Your task to perform on an android device: snooze an email in the gmail app Image 0: 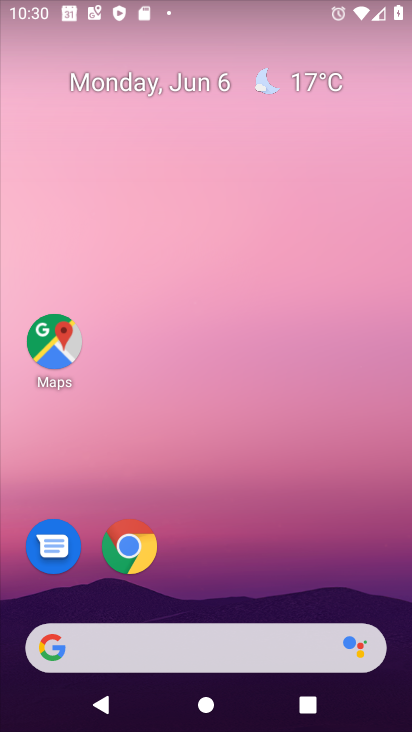
Step 0: drag from (212, 583) to (207, 75)
Your task to perform on an android device: snooze an email in the gmail app Image 1: 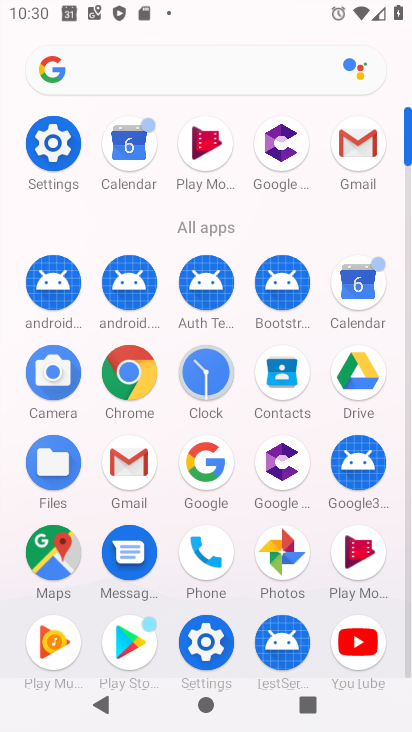
Step 1: click (143, 472)
Your task to perform on an android device: snooze an email in the gmail app Image 2: 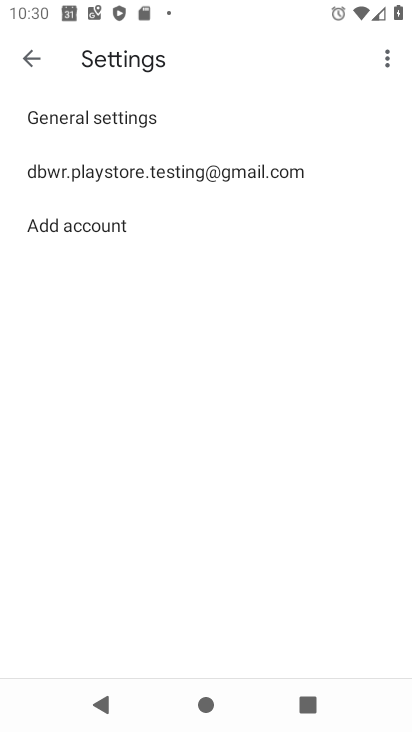
Step 2: click (28, 51)
Your task to perform on an android device: snooze an email in the gmail app Image 3: 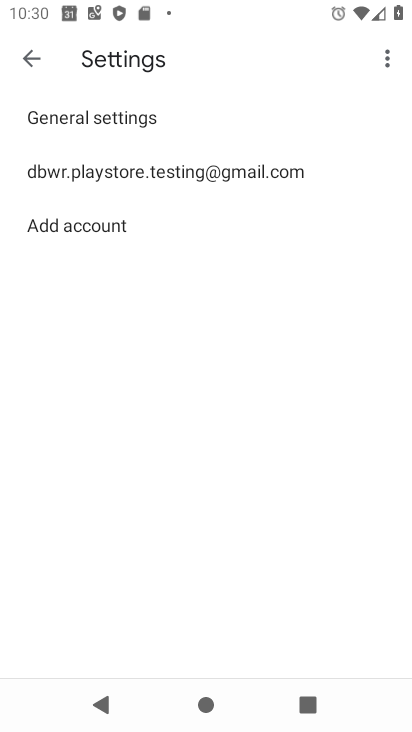
Step 3: click (28, 53)
Your task to perform on an android device: snooze an email in the gmail app Image 4: 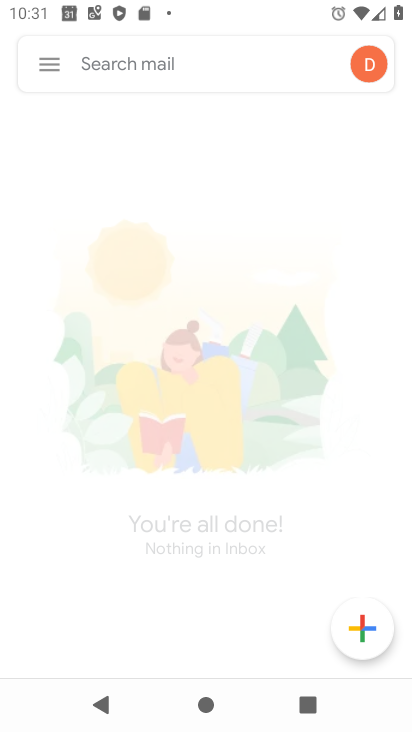
Step 4: click (31, 53)
Your task to perform on an android device: snooze an email in the gmail app Image 5: 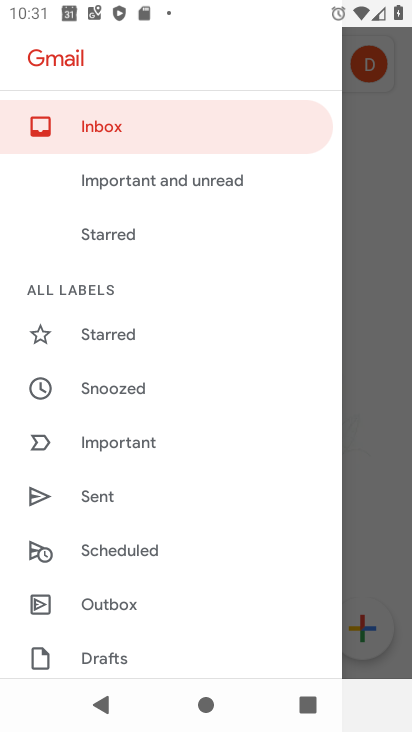
Step 5: drag from (121, 574) to (212, 266)
Your task to perform on an android device: snooze an email in the gmail app Image 6: 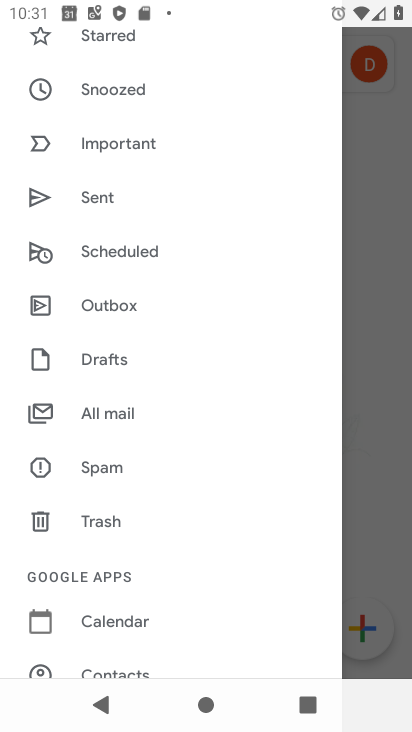
Step 6: click (126, 419)
Your task to perform on an android device: snooze an email in the gmail app Image 7: 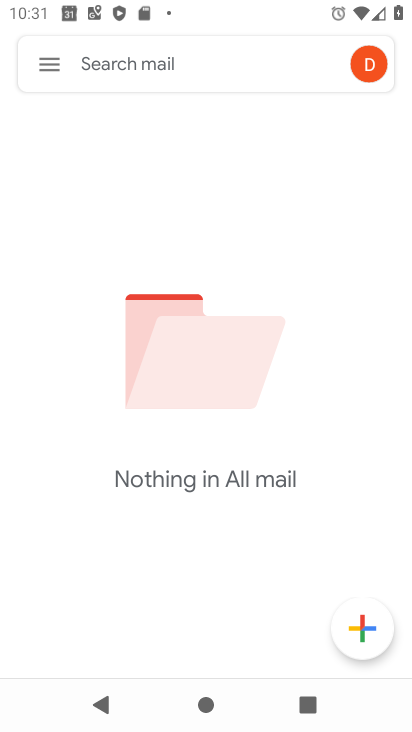
Step 7: task complete